Your task to perform on an android device: Open Chrome and go to settings Image 0: 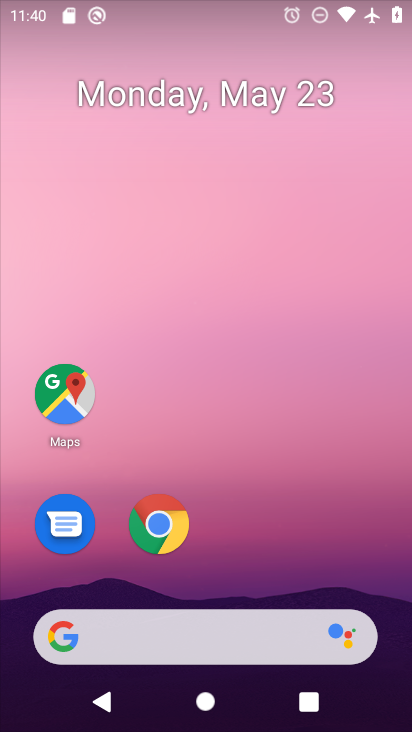
Step 0: click (60, 399)
Your task to perform on an android device: Open Chrome and go to settings Image 1: 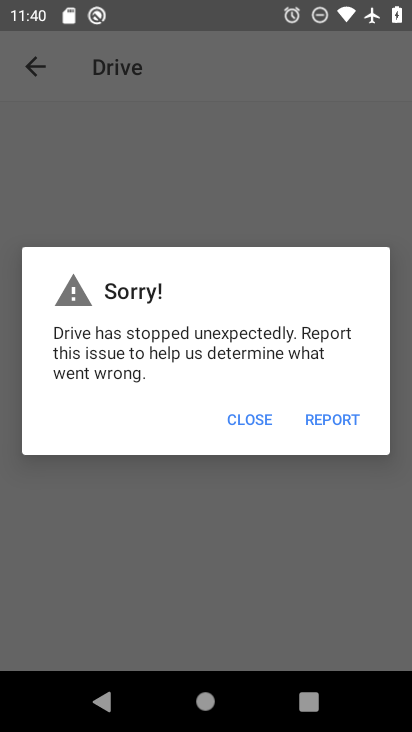
Step 1: press home button
Your task to perform on an android device: Open Chrome and go to settings Image 2: 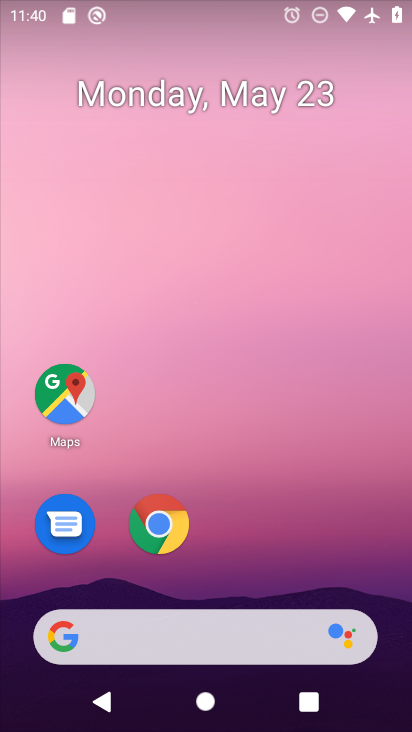
Step 2: click (180, 530)
Your task to perform on an android device: Open Chrome and go to settings Image 3: 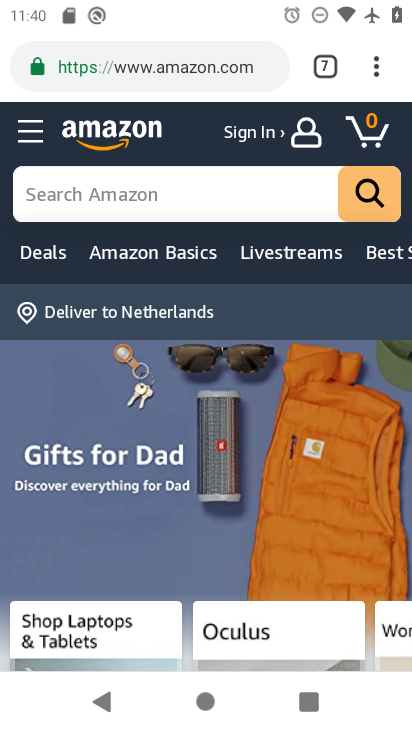
Step 3: task complete